Your task to perform on an android device: turn on the 12-hour format for clock Image 0: 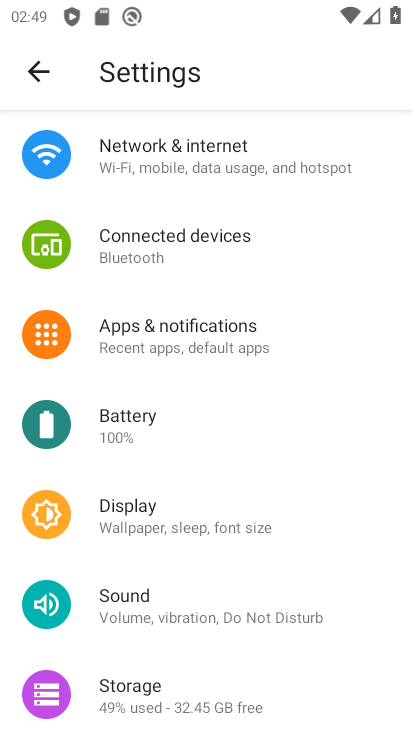
Step 0: press home button
Your task to perform on an android device: turn on the 12-hour format for clock Image 1: 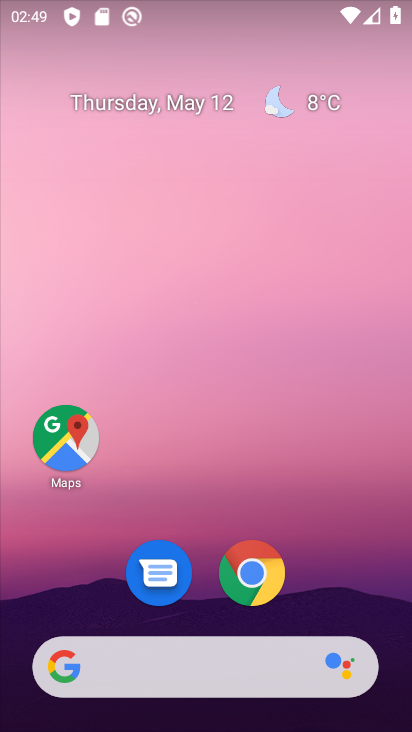
Step 1: drag from (345, 516) to (350, 137)
Your task to perform on an android device: turn on the 12-hour format for clock Image 2: 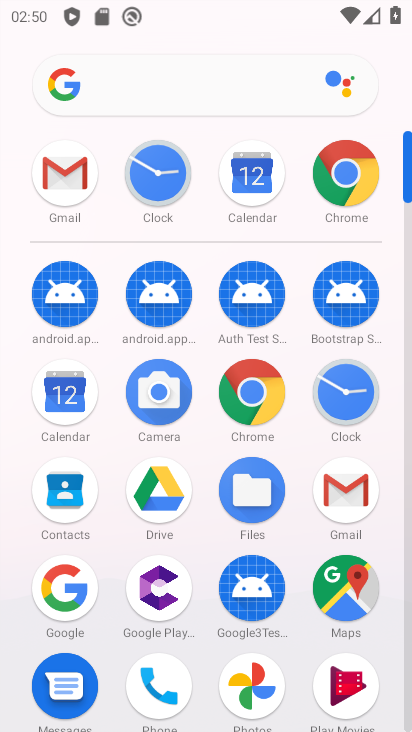
Step 2: click (167, 178)
Your task to perform on an android device: turn on the 12-hour format for clock Image 3: 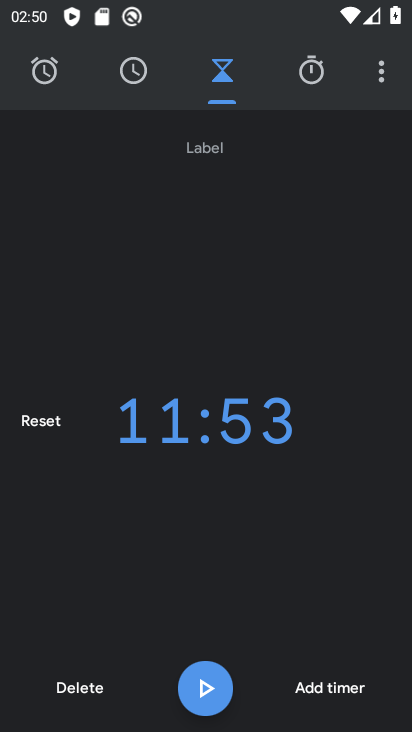
Step 3: drag from (380, 66) to (299, 142)
Your task to perform on an android device: turn on the 12-hour format for clock Image 4: 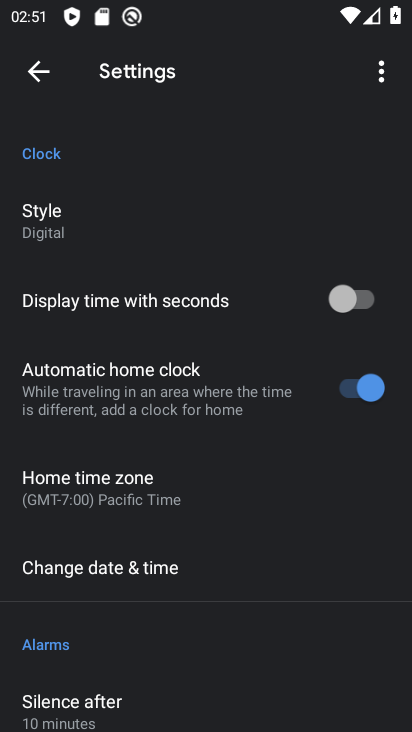
Step 4: click (222, 570)
Your task to perform on an android device: turn on the 12-hour format for clock Image 5: 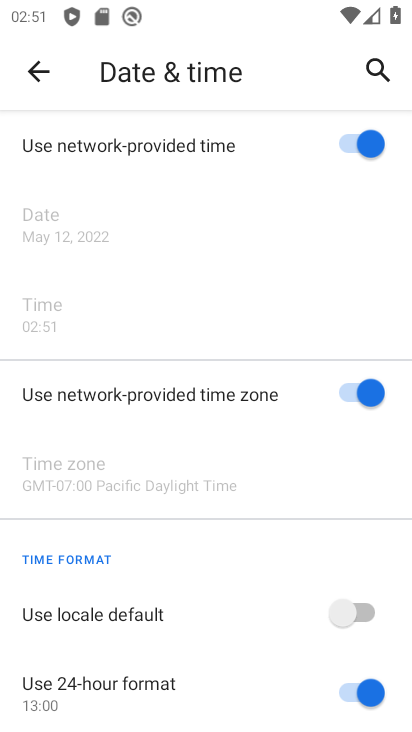
Step 5: click (260, 612)
Your task to perform on an android device: turn on the 12-hour format for clock Image 6: 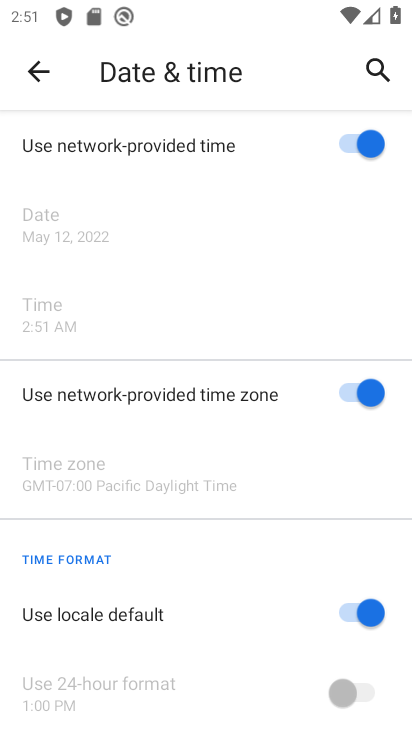
Step 6: click (284, 700)
Your task to perform on an android device: turn on the 12-hour format for clock Image 7: 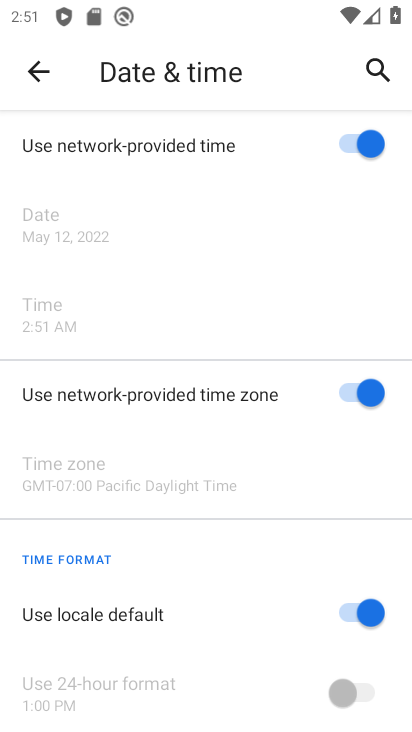
Step 7: click (357, 615)
Your task to perform on an android device: turn on the 12-hour format for clock Image 8: 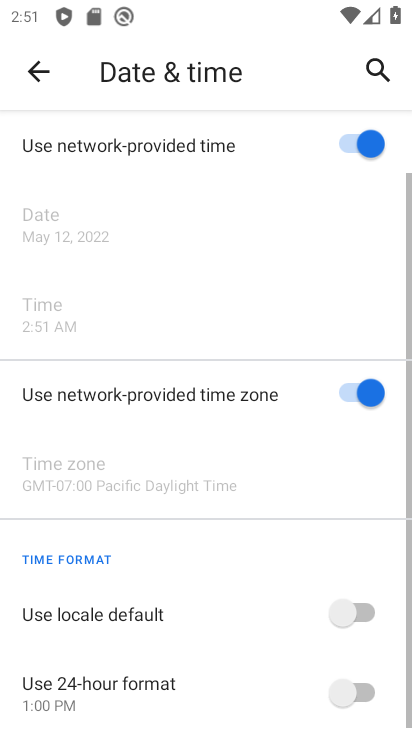
Step 8: click (365, 687)
Your task to perform on an android device: turn on the 12-hour format for clock Image 9: 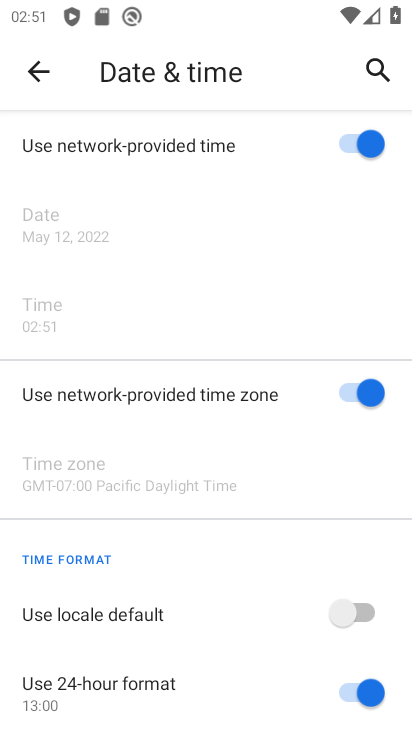
Step 9: task complete